Your task to perform on an android device: allow notifications from all sites in the chrome app Image 0: 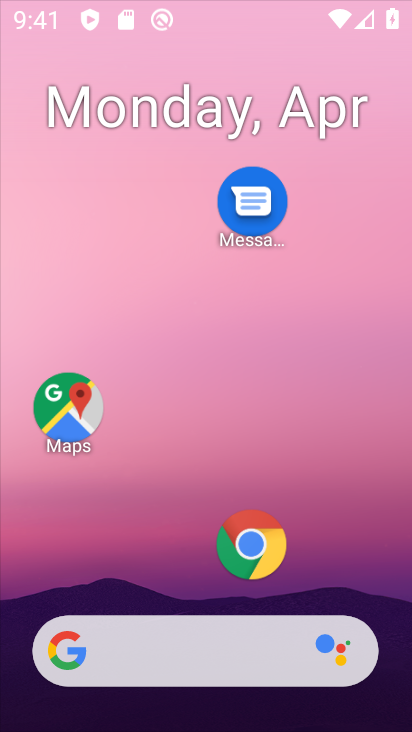
Step 0: press home button
Your task to perform on an android device: allow notifications from all sites in the chrome app Image 1: 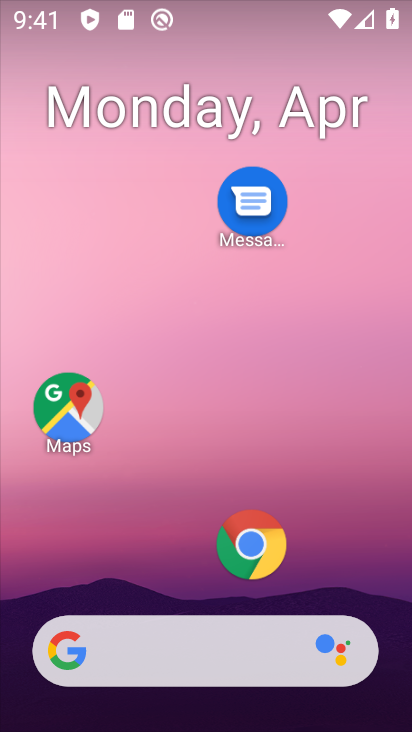
Step 1: drag from (196, 589) to (226, 13)
Your task to perform on an android device: allow notifications from all sites in the chrome app Image 2: 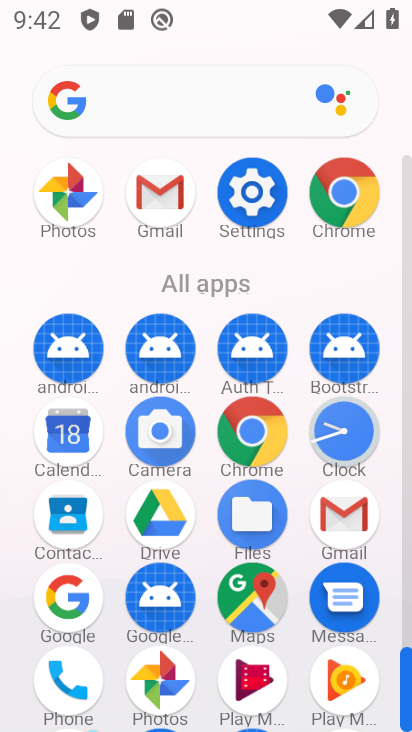
Step 2: click (342, 184)
Your task to perform on an android device: allow notifications from all sites in the chrome app Image 3: 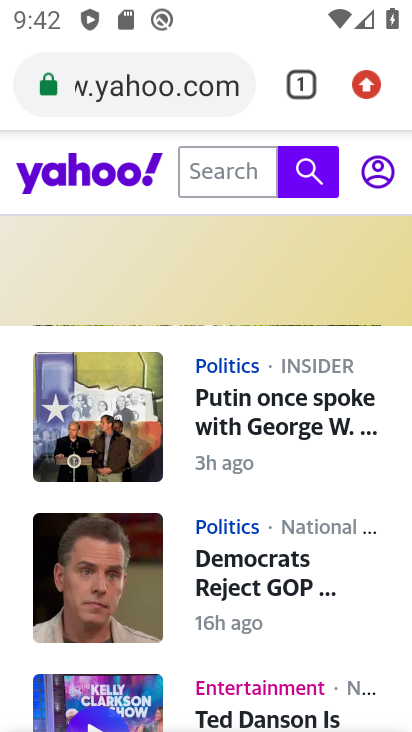
Step 3: press back button
Your task to perform on an android device: allow notifications from all sites in the chrome app Image 4: 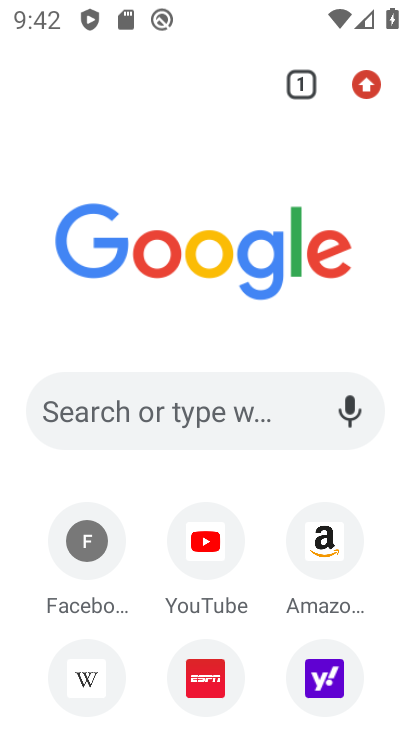
Step 4: click (365, 80)
Your task to perform on an android device: allow notifications from all sites in the chrome app Image 5: 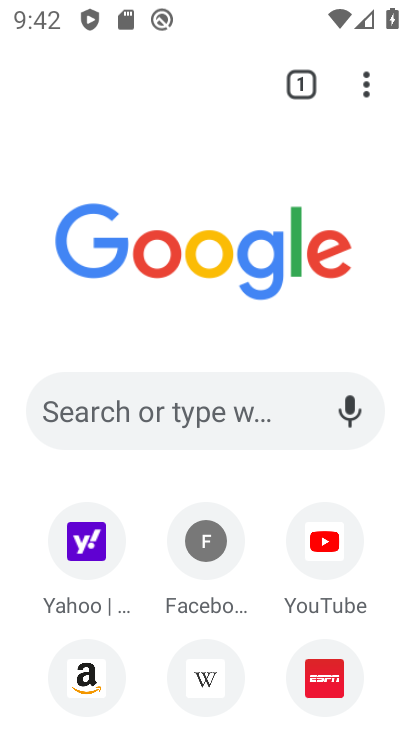
Step 5: click (369, 82)
Your task to perform on an android device: allow notifications from all sites in the chrome app Image 6: 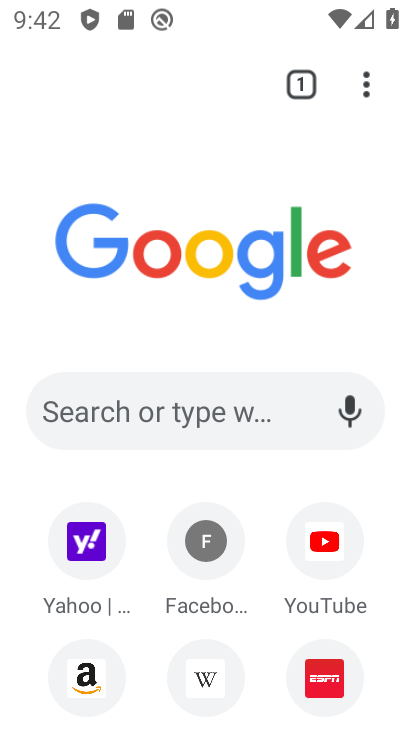
Step 6: click (360, 85)
Your task to perform on an android device: allow notifications from all sites in the chrome app Image 7: 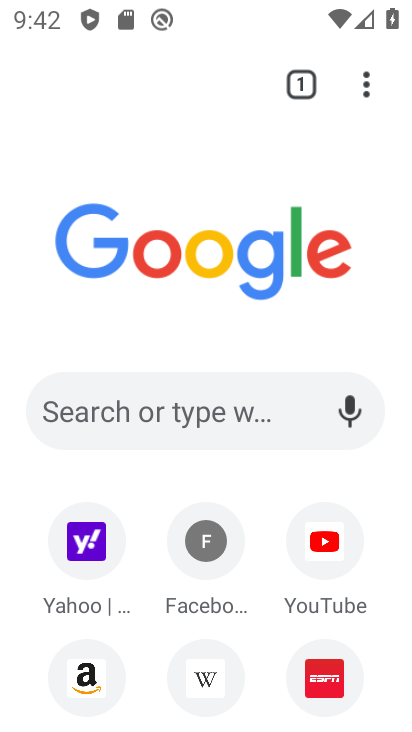
Step 7: click (359, 86)
Your task to perform on an android device: allow notifications from all sites in the chrome app Image 8: 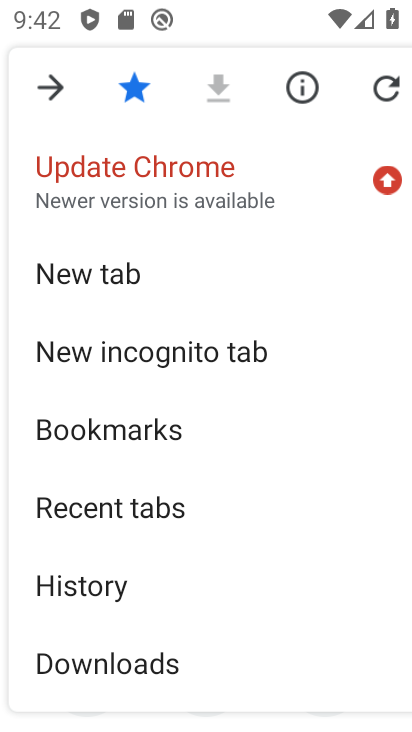
Step 8: drag from (180, 639) to (179, 141)
Your task to perform on an android device: allow notifications from all sites in the chrome app Image 9: 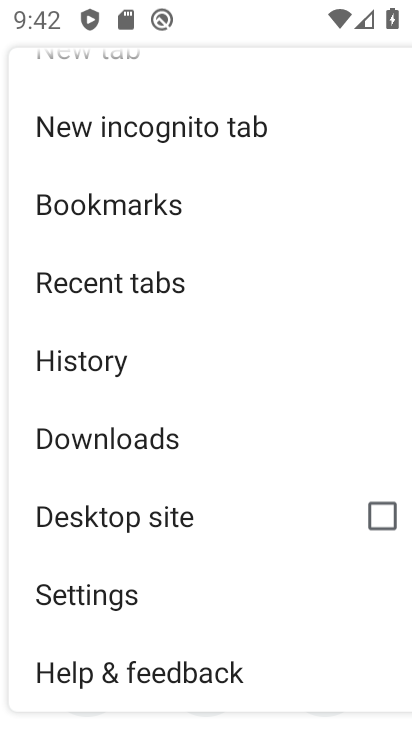
Step 9: click (157, 596)
Your task to perform on an android device: allow notifications from all sites in the chrome app Image 10: 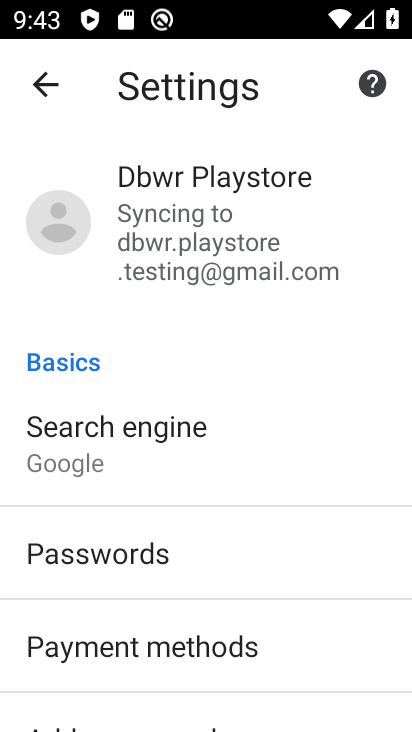
Step 10: drag from (227, 637) to (249, 189)
Your task to perform on an android device: allow notifications from all sites in the chrome app Image 11: 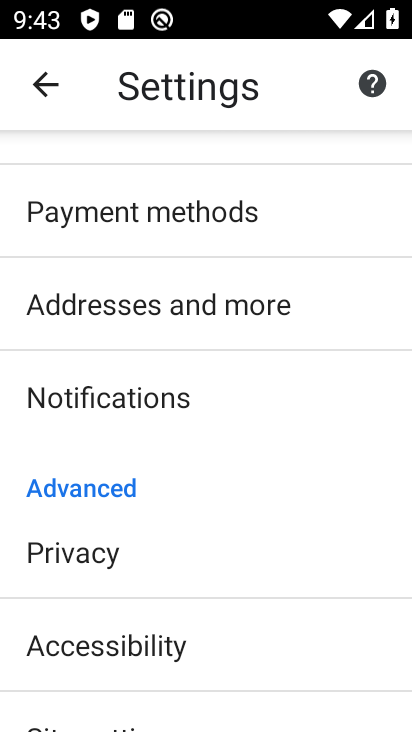
Step 11: drag from (182, 647) to (217, 189)
Your task to perform on an android device: allow notifications from all sites in the chrome app Image 12: 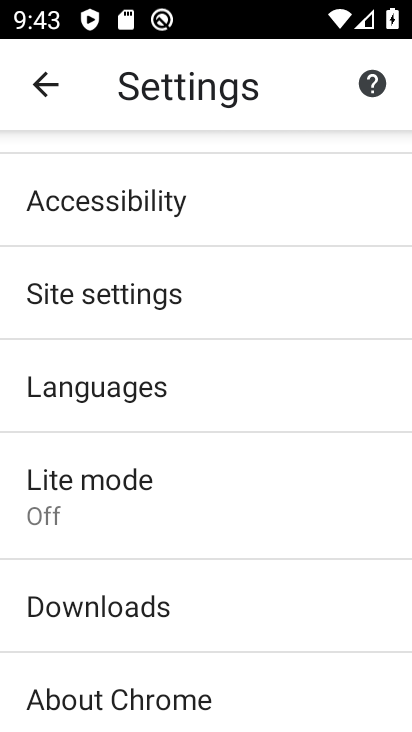
Step 12: click (181, 307)
Your task to perform on an android device: allow notifications from all sites in the chrome app Image 13: 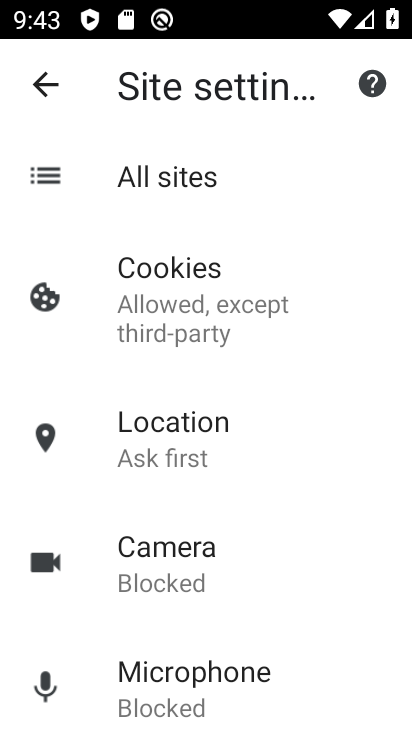
Step 13: click (108, 441)
Your task to perform on an android device: allow notifications from all sites in the chrome app Image 14: 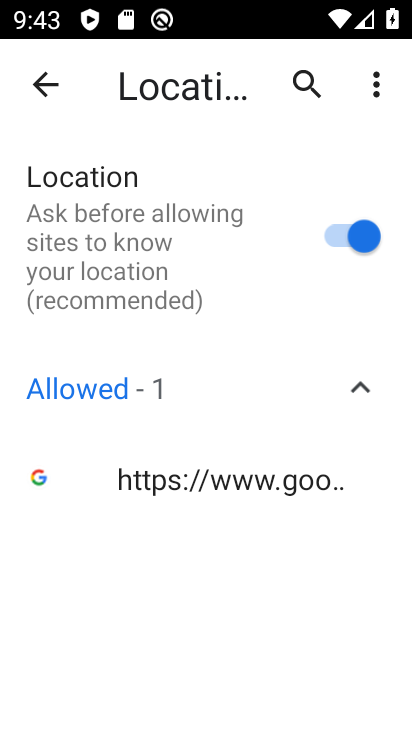
Step 14: click (49, 89)
Your task to perform on an android device: allow notifications from all sites in the chrome app Image 15: 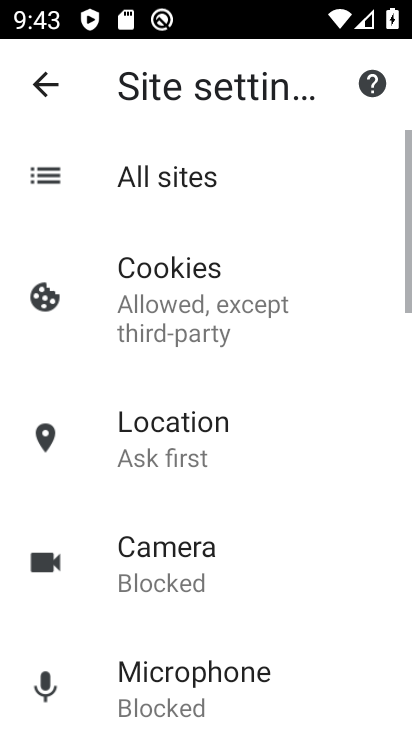
Step 15: click (97, 169)
Your task to perform on an android device: allow notifications from all sites in the chrome app Image 16: 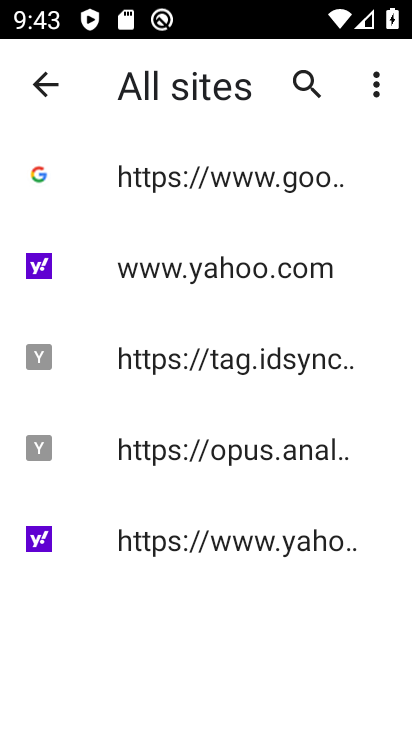
Step 16: click (91, 182)
Your task to perform on an android device: allow notifications from all sites in the chrome app Image 17: 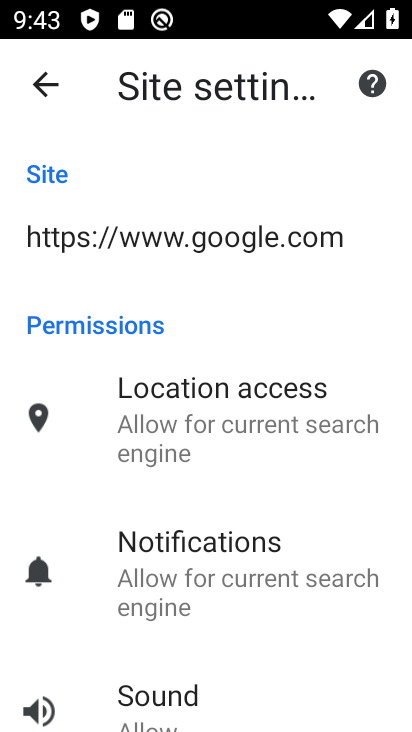
Step 17: drag from (102, 623) to (122, 321)
Your task to perform on an android device: allow notifications from all sites in the chrome app Image 18: 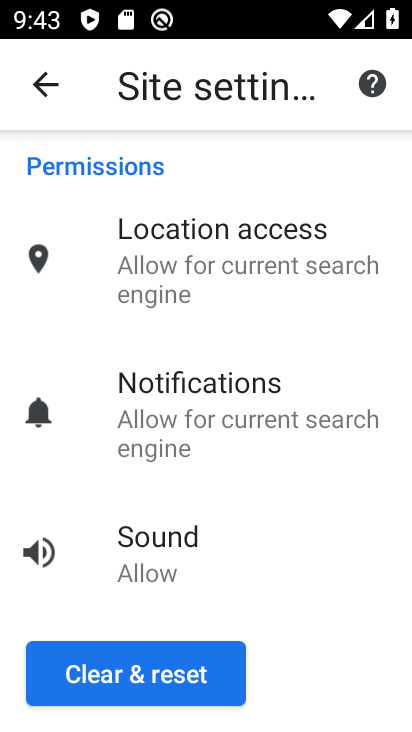
Step 18: press back button
Your task to perform on an android device: allow notifications from all sites in the chrome app Image 19: 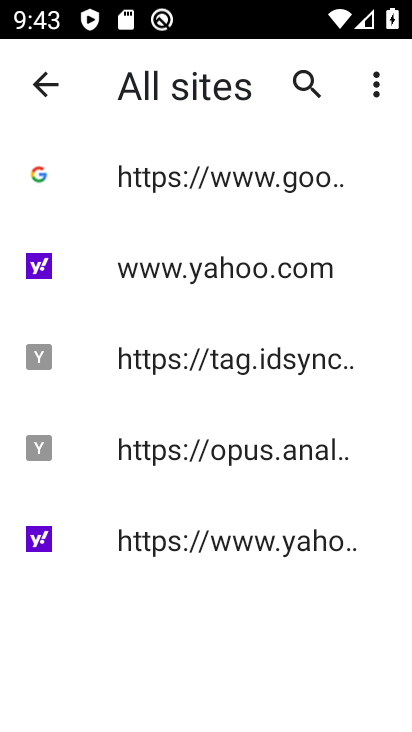
Step 19: click (98, 267)
Your task to perform on an android device: allow notifications from all sites in the chrome app Image 20: 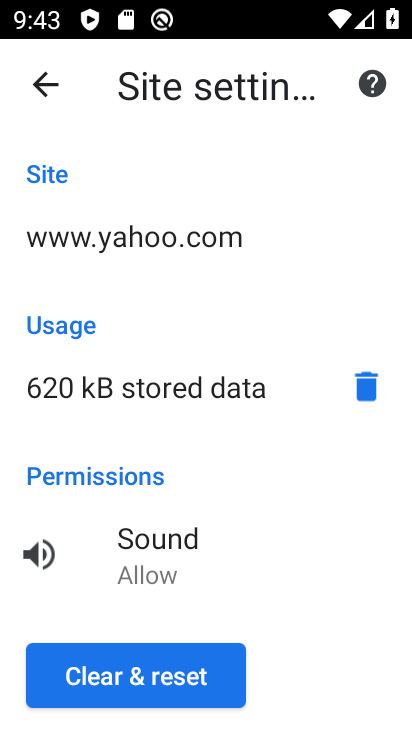
Step 20: click (46, 92)
Your task to perform on an android device: allow notifications from all sites in the chrome app Image 21: 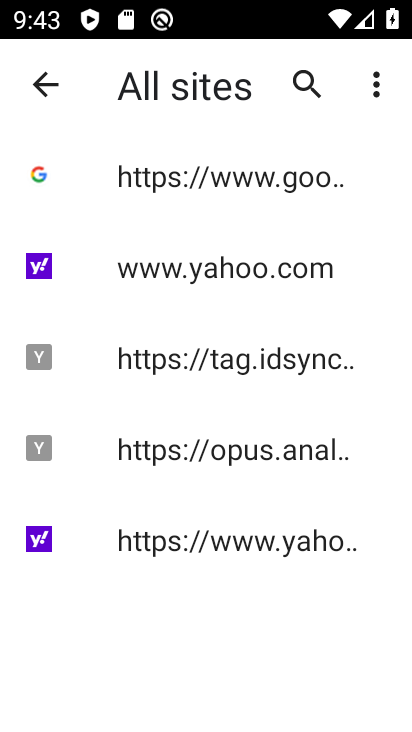
Step 21: click (93, 356)
Your task to perform on an android device: allow notifications from all sites in the chrome app Image 22: 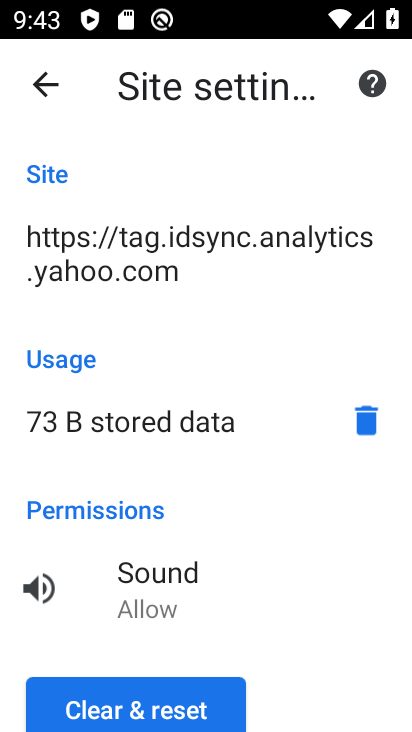
Step 22: click (46, 88)
Your task to perform on an android device: allow notifications from all sites in the chrome app Image 23: 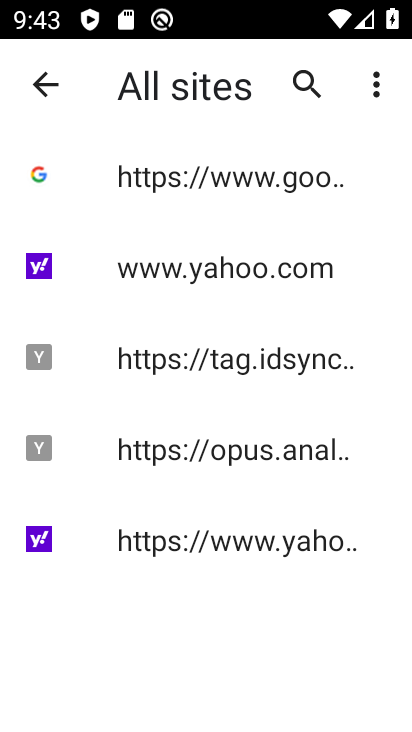
Step 23: click (84, 445)
Your task to perform on an android device: allow notifications from all sites in the chrome app Image 24: 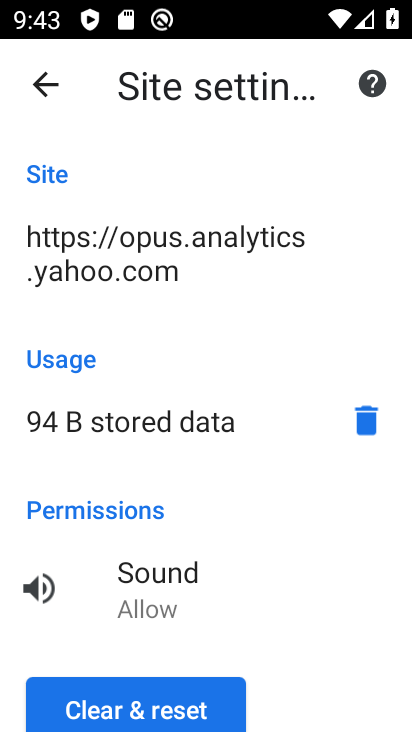
Step 24: click (50, 87)
Your task to perform on an android device: allow notifications from all sites in the chrome app Image 25: 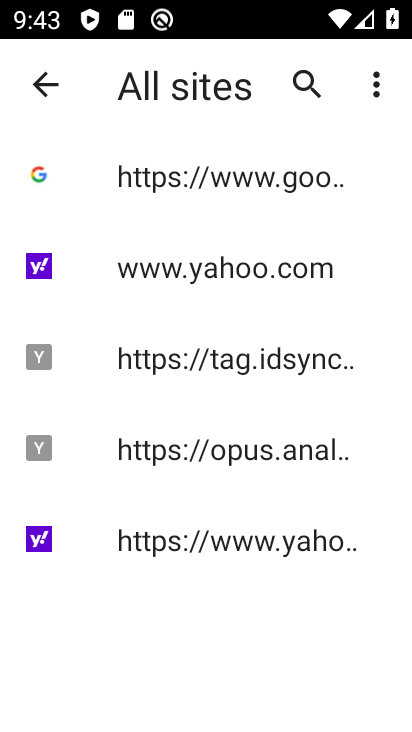
Step 25: click (103, 539)
Your task to perform on an android device: allow notifications from all sites in the chrome app Image 26: 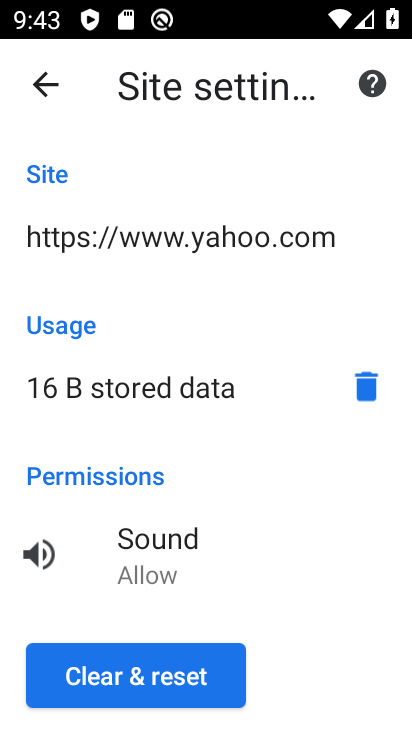
Step 26: click (45, 86)
Your task to perform on an android device: allow notifications from all sites in the chrome app Image 27: 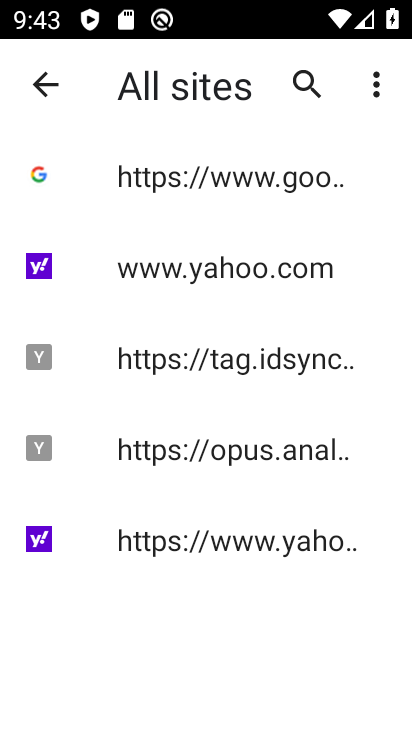
Step 27: task complete